Your task to perform on an android device: toggle wifi Image 0: 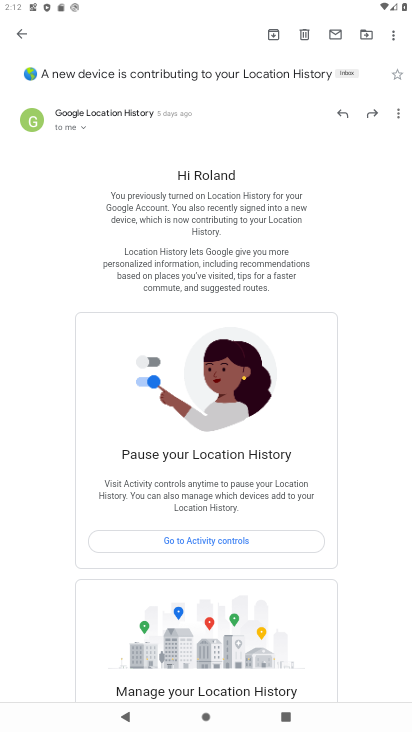
Step 0: press home button
Your task to perform on an android device: toggle wifi Image 1: 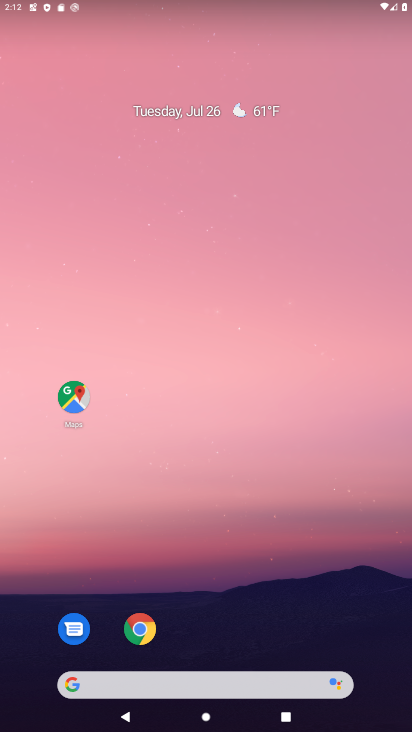
Step 1: drag from (218, 562) to (196, 0)
Your task to perform on an android device: toggle wifi Image 2: 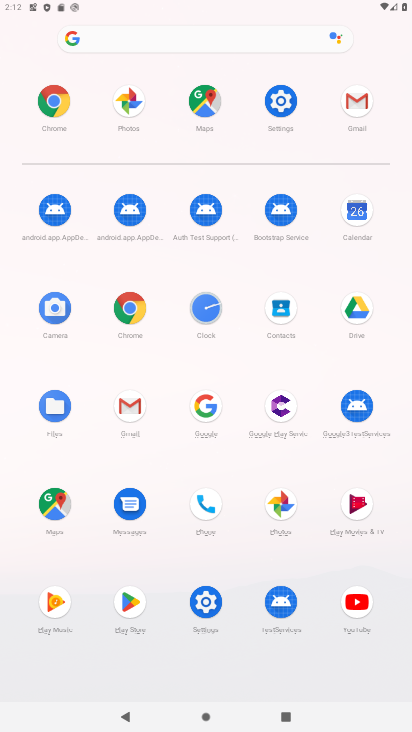
Step 2: click (279, 105)
Your task to perform on an android device: toggle wifi Image 3: 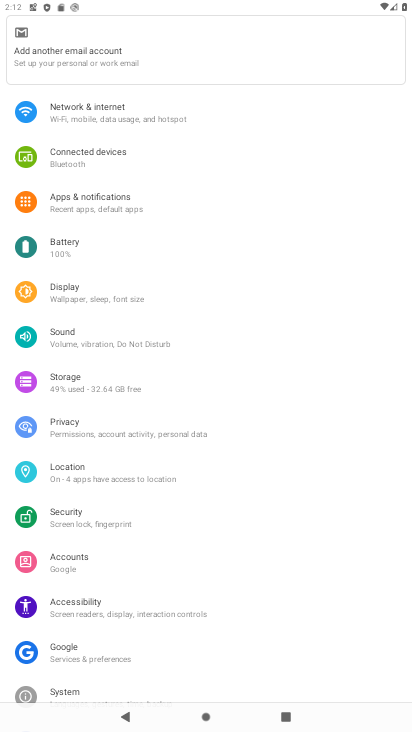
Step 3: click (87, 106)
Your task to perform on an android device: toggle wifi Image 4: 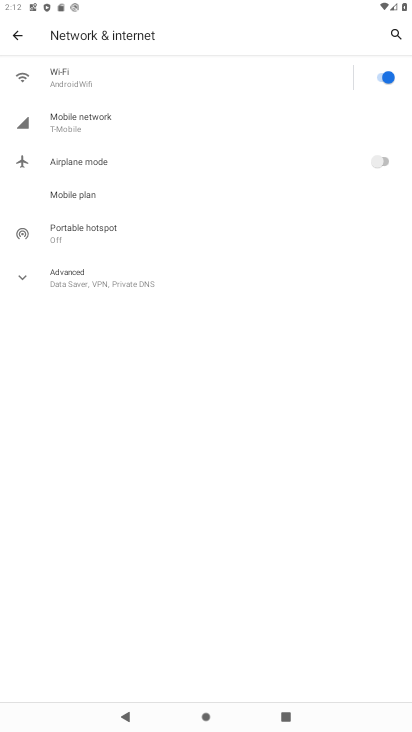
Step 4: click (392, 71)
Your task to perform on an android device: toggle wifi Image 5: 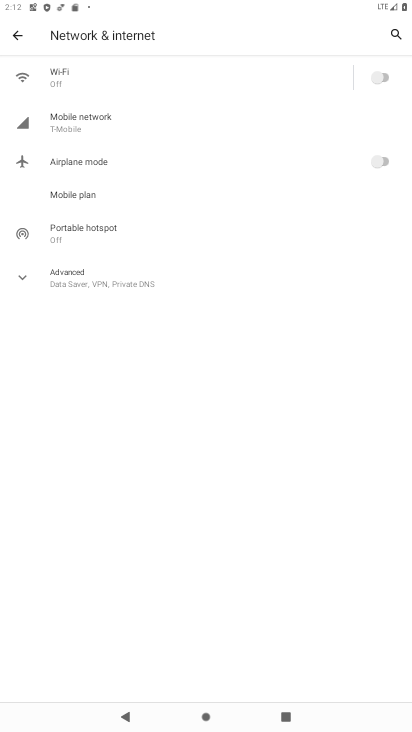
Step 5: task complete